Your task to perform on an android device: Open calendar and show me the third week of next month Image 0: 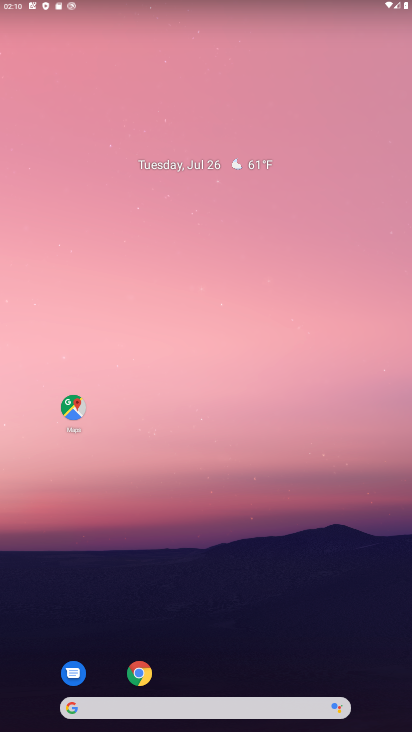
Step 0: press home button
Your task to perform on an android device: Open calendar and show me the third week of next month Image 1: 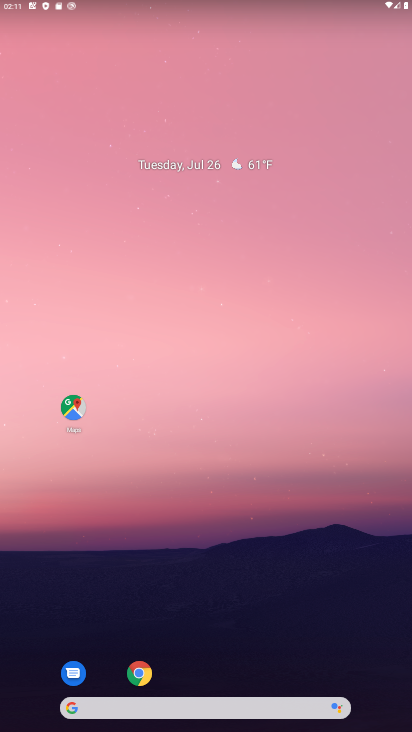
Step 1: drag from (222, 655) to (256, 3)
Your task to perform on an android device: Open calendar and show me the third week of next month Image 2: 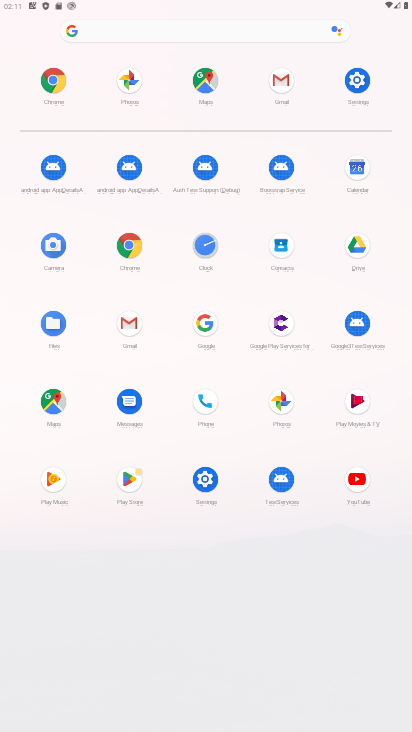
Step 2: click (358, 157)
Your task to perform on an android device: Open calendar and show me the third week of next month Image 3: 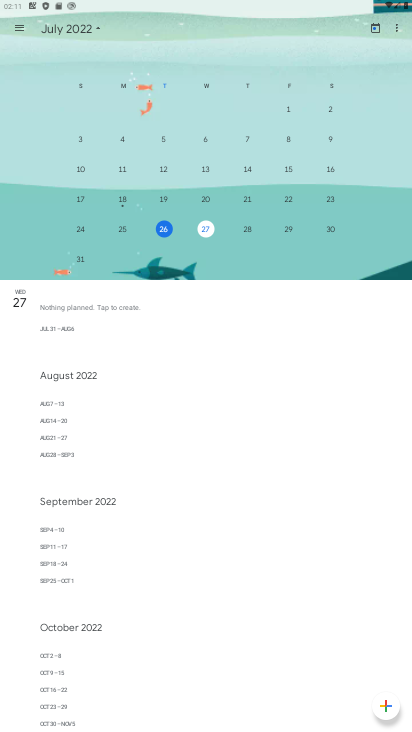
Step 3: drag from (305, 191) to (93, 181)
Your task to perform on an android device: Open calendar and show me the third week of next month Image 4: 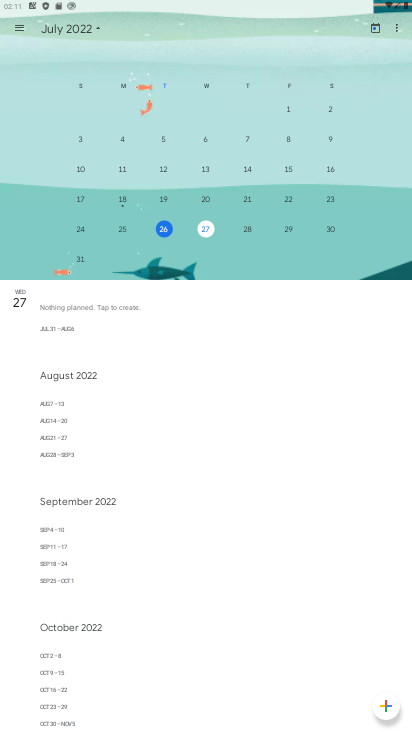
Step 4: drag from (339, 183) to (72, 174)
Your task to perform on an android device: Open calendar and show me the third week of next month Image 5: 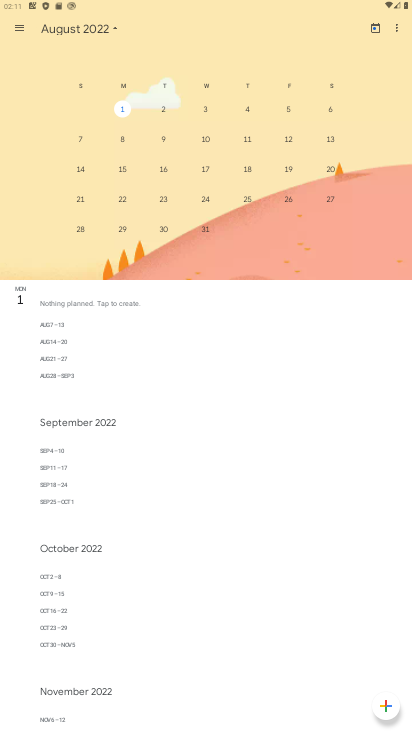
Step 5: click (124, 165)
Your task to perform on an android device: Open calendar and show me the third week of next month Image 6: 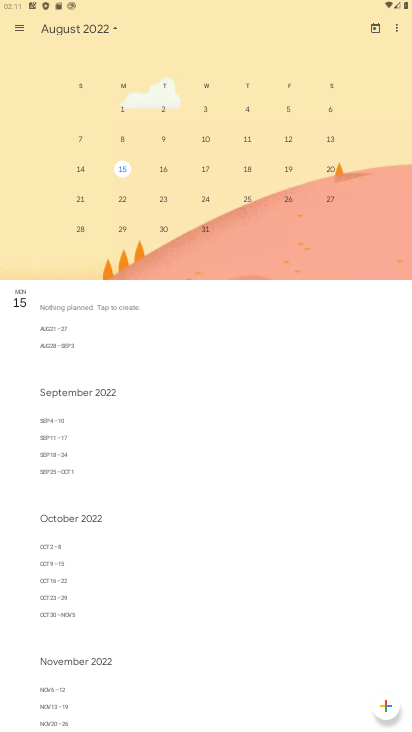
Step 6: click (16, 23)
Your task to perform on an android device: Open calendar and show me the third week of next month Image 7: 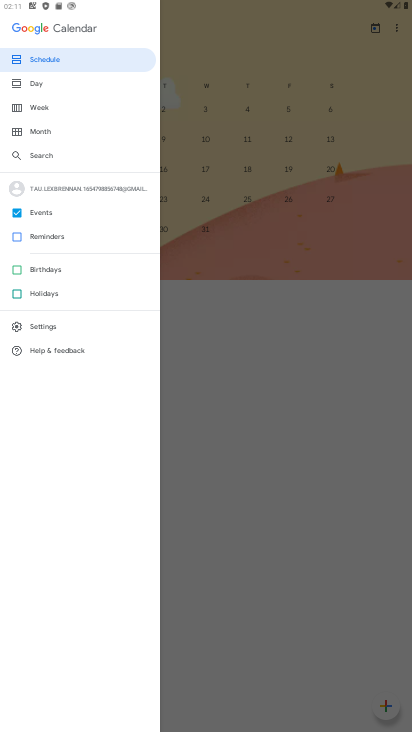
Step 7: click (37, 107)
Your task to perform on an android device: Open calendar and show me the third week of next month Image 8: 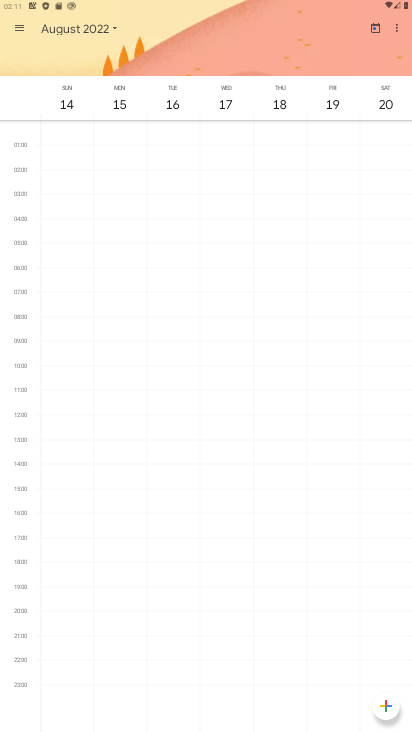
Step 8: task complete